Your task to perform on an android device: Show me productivity apps on the Play Store Image 0: 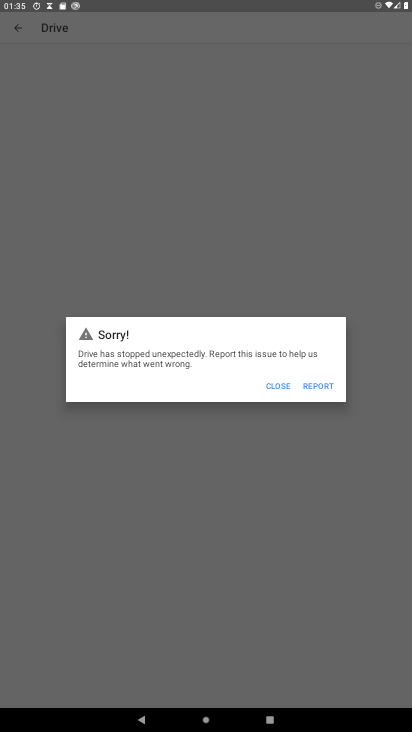
Step 0: press home button
Your task to perform on an android device: Show me productivity apps on the Play Store Image 1: 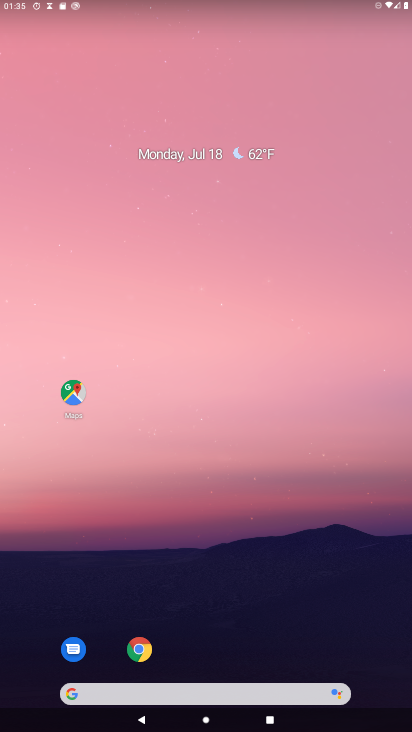
Step 1: drag from (34, 701) to (350, 5)
Your task to perform on an android device: Show me productivity apps on the Play Store Image 2: 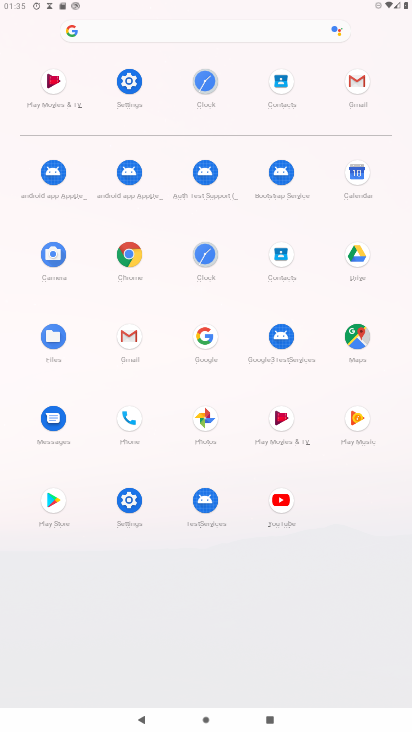
Step 2: click (53, 501)
Your task to perform on an android device: Show me productivity apps on the Play Store Image 3: 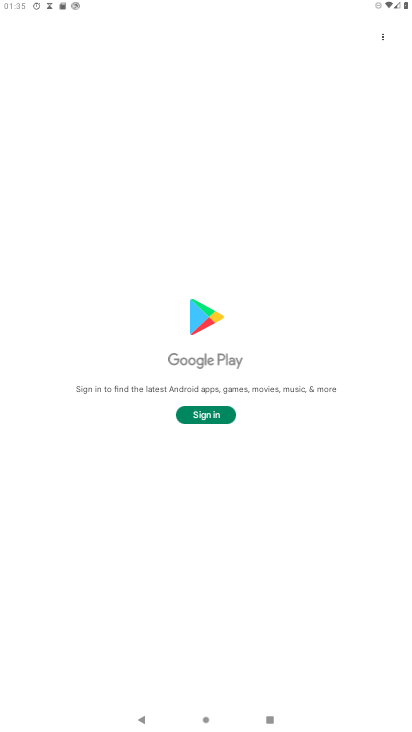
Step 3: click (201, 416)
Your task to perform on an android device: Show me productivity apps on the Play Store Image 4: 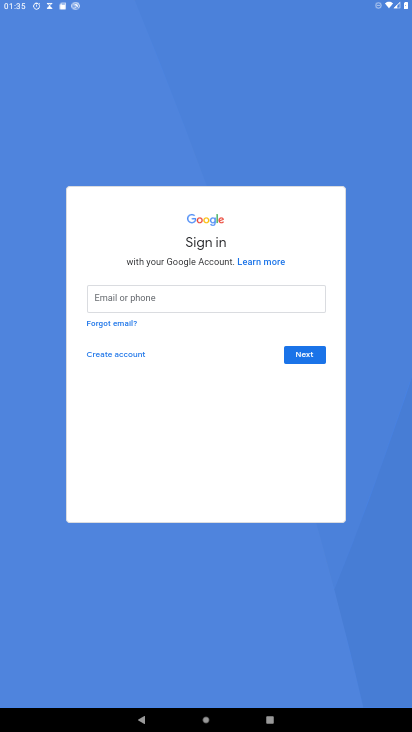
Step 4: task complete